Your task to perform on an android device: Go to battery settings Image 0: 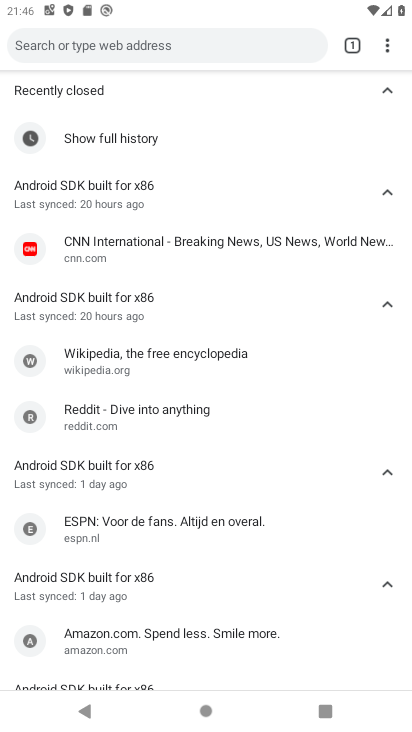
Step 0: press home button
Your task to perform on an android device: Go to battery settings Image 1: 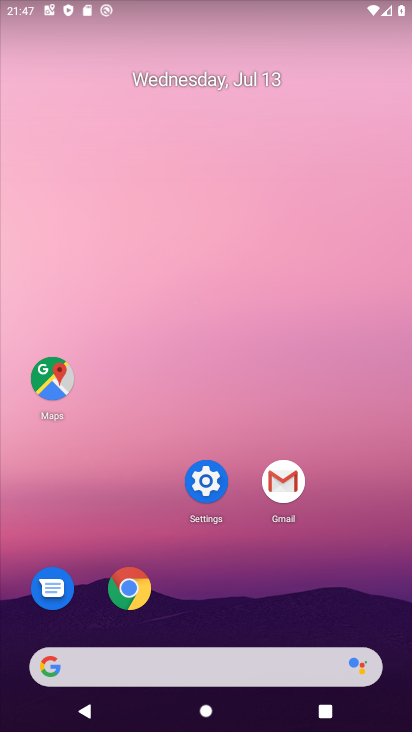
Step 1: click (212, 488)
Your task to perform on an android device: Go to battery settings Image 2: 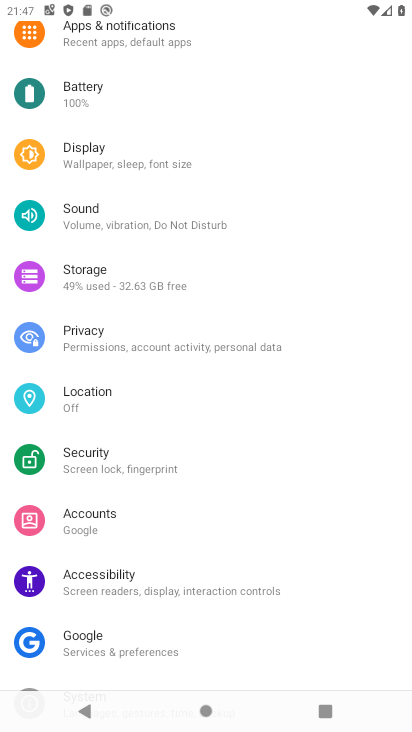
Step 2: click (92, 97)
Your task to perform on an android device: Go to battery settings Image 3: 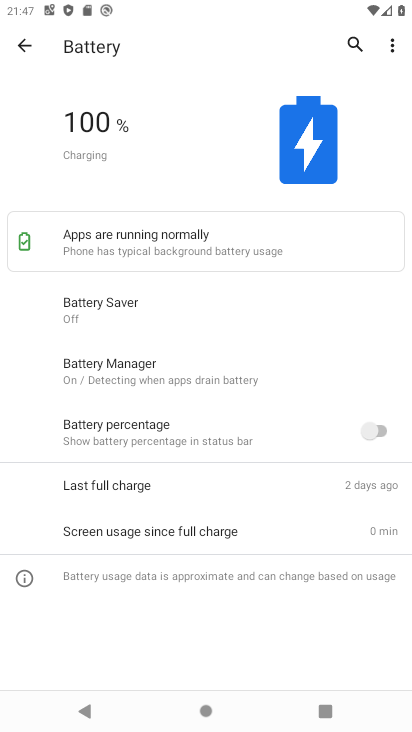
Step 3: click (391, 48)
Your task to perform on an android device: Go to battery settings Image 4: 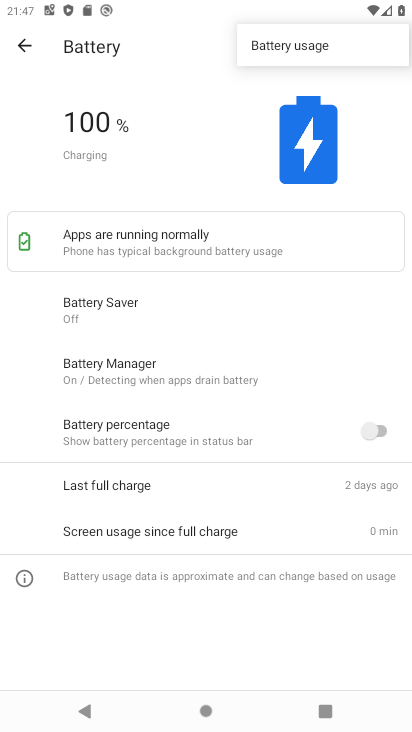
Step 4: click (346, 39)
Your task to perform on an android device: Go to battery settings Image 5: 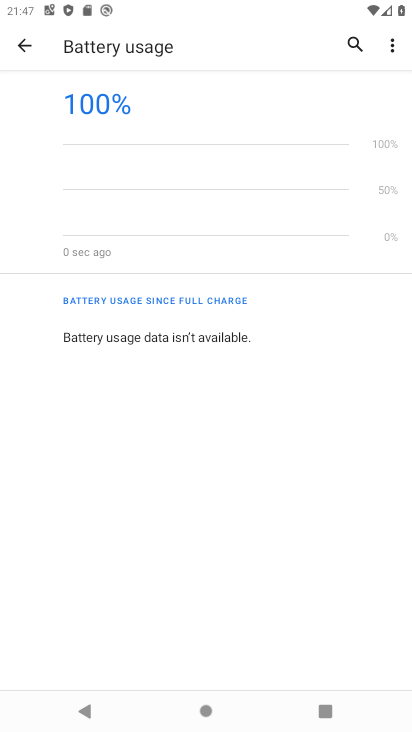
Step 5: task complete